Your task to perform on an android device: check storage Image 0: 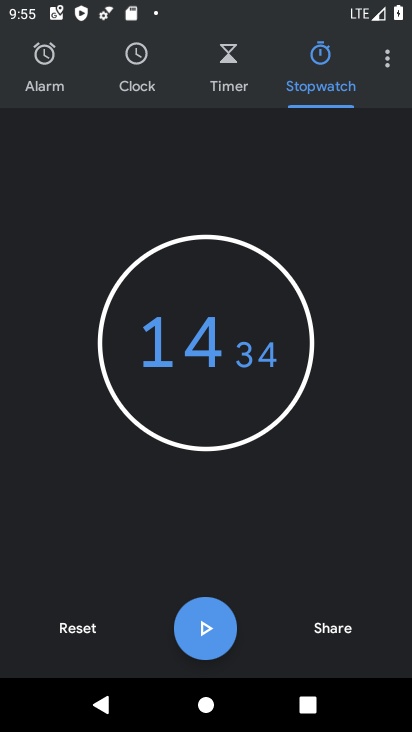
Step 0: press home button
Your task to perform on an android device: check storage Image 1: 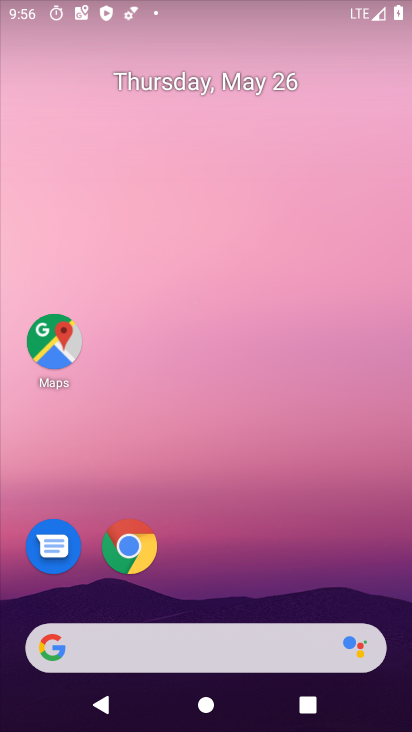
Step 1: drag from (315, 593) to (320, 150)
Your task to perform on an android device: check storage Image 2: 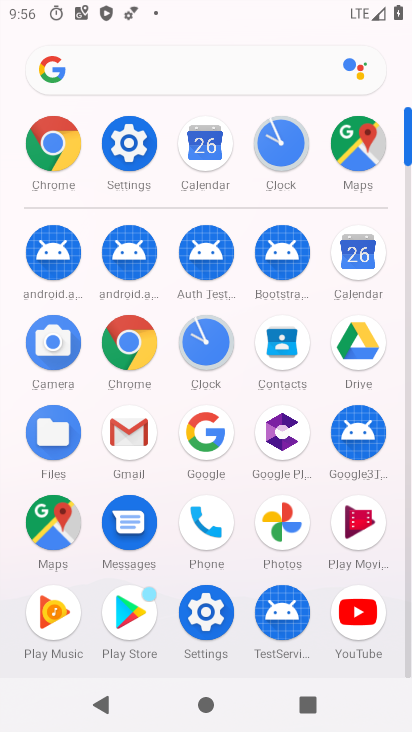
Step 2: click (111, 146)
Your task to perform on an android device: check storage Image 3: 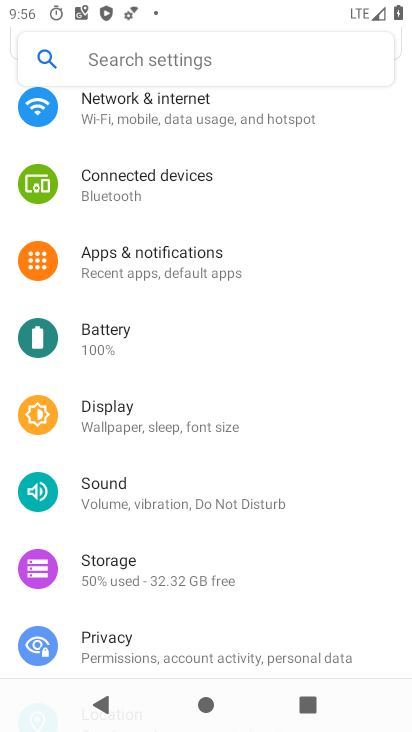
Step 3: drag from (185, 549) to (224, 290)
Your task to perform on an android device: check storage Image 4: 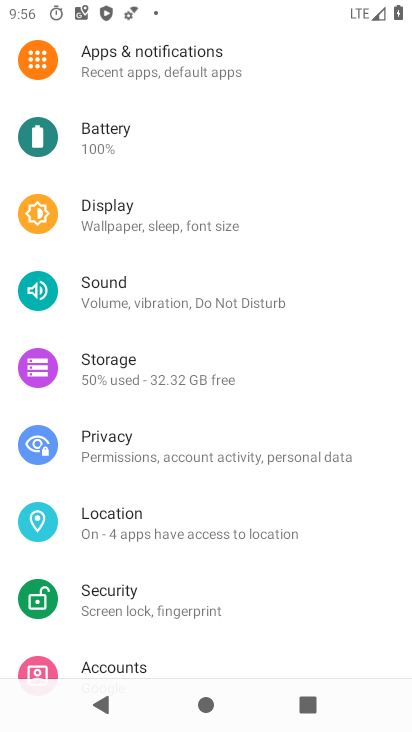
Step 4: click (145, 365)
Your task to perform on an android device: check storage Image 5: 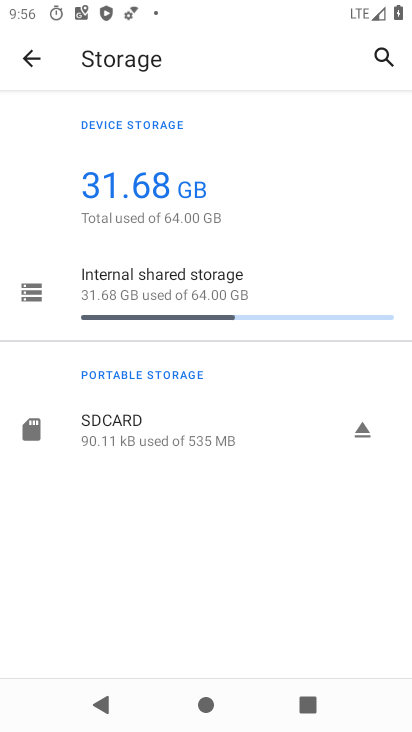
Step 5: click (36, 295)
Your task to perform on an android device: check storage Image 6: 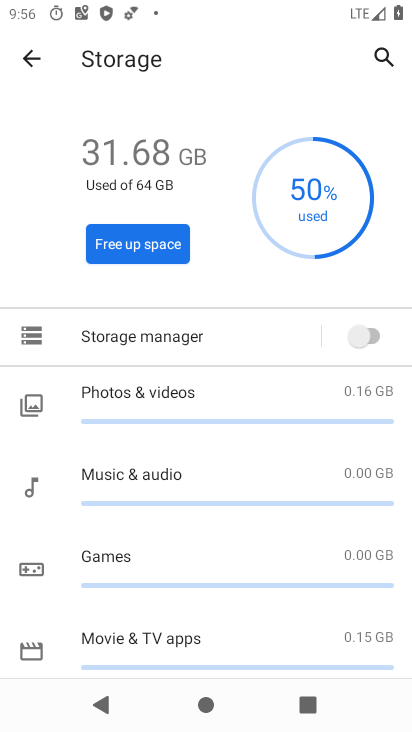
Step 6: task complete